Your task to perform on an android device: turn off sleep mode Image 0: 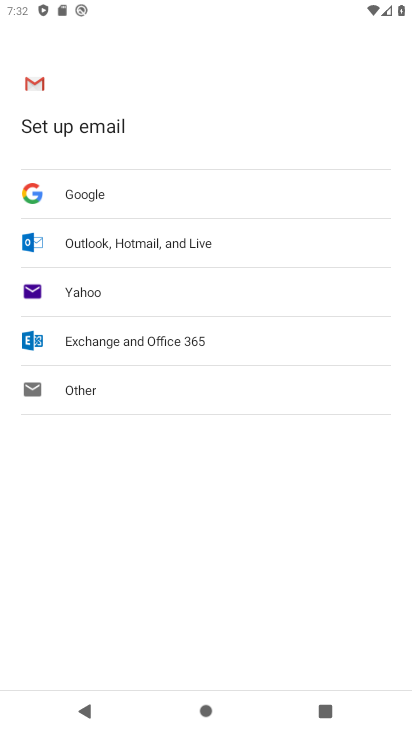
Step 0: press home button
Your task to perform on an android device: turn off sleep mode Image 1: 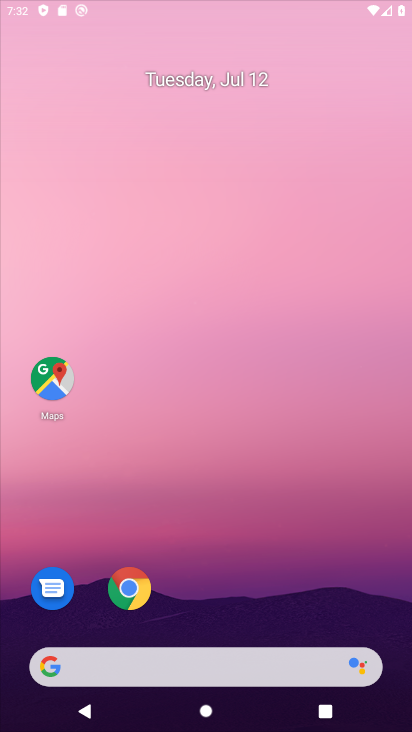
Step 1: drag from (212, 640) to (262, 73)
Your task to perform on an android device: turn off sleep mode Image 2: 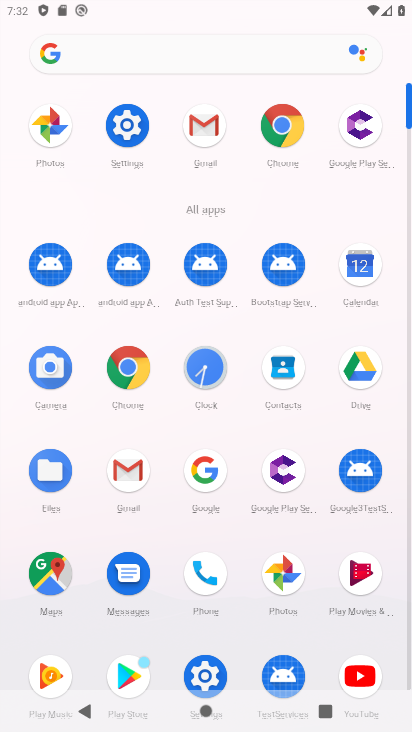
Step 2: click (116, 121)
Your task to perform on an android device: turn off sleep mode Image 3: 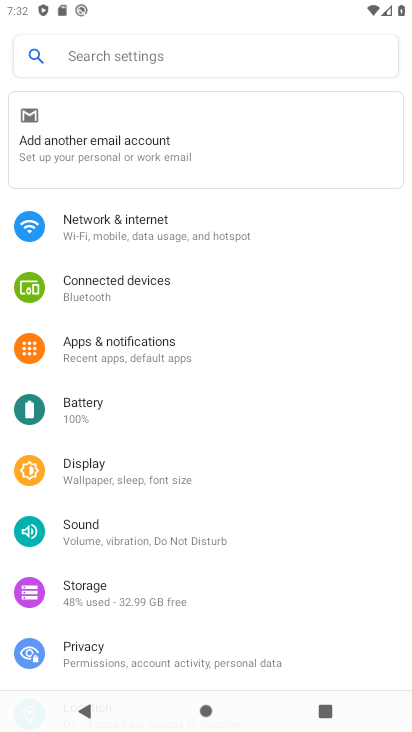
Step 3: click (116, 467)
Your task to perform on an android device: turn off sleep mode Image 4: 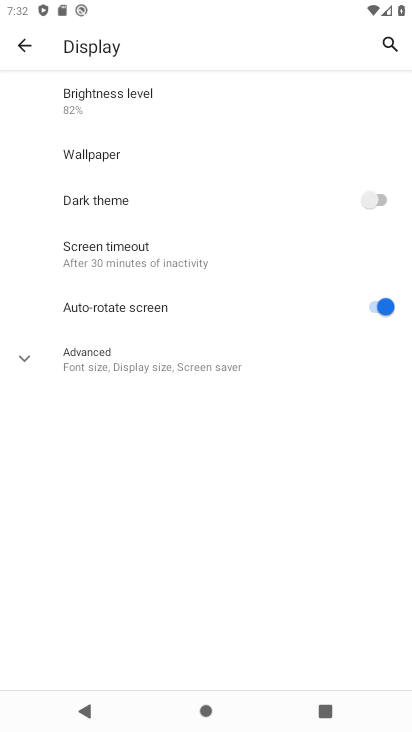
Step 4: click (116, 264)
Your task to perform on an android device: turn off sleep mode Image 5: 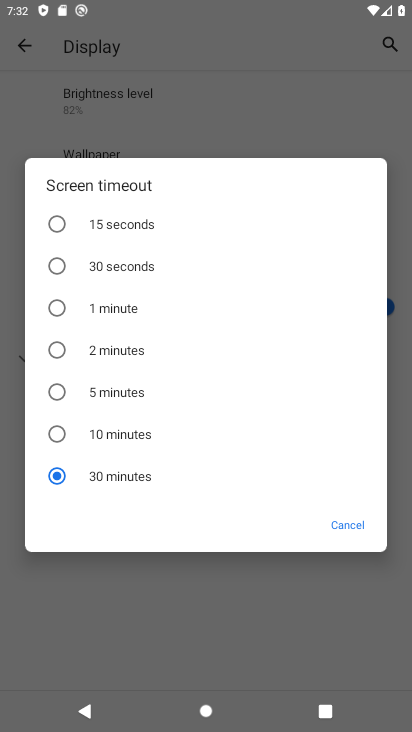
Step 5: task complete